Your task to perform on an android device: turn off sleep mode Image 0: 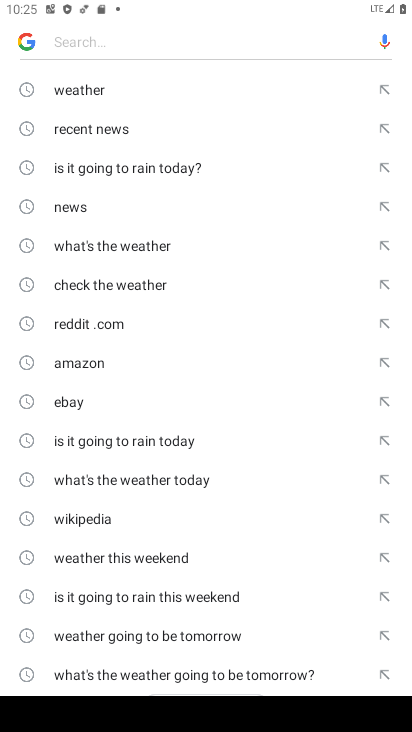
Step 0: press home button
Your task to perform on an android device: turn off sleep mode Image 1: 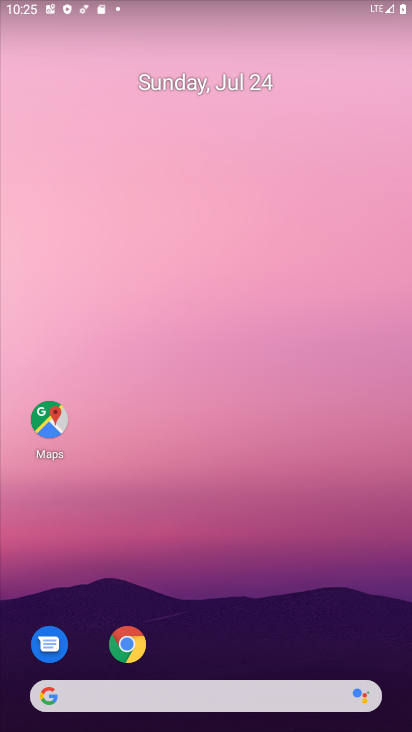
Step 1: drag from (35, 491) to (230, 2)
Your task to perform on an android device: turn off sleep mode Image 2: 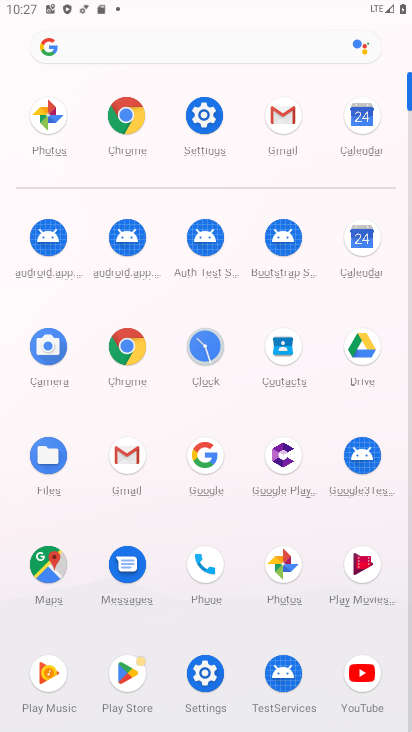
Step 2: click (199, 112)
Your task to perform on an android device: turn off sleep mode Image 3: 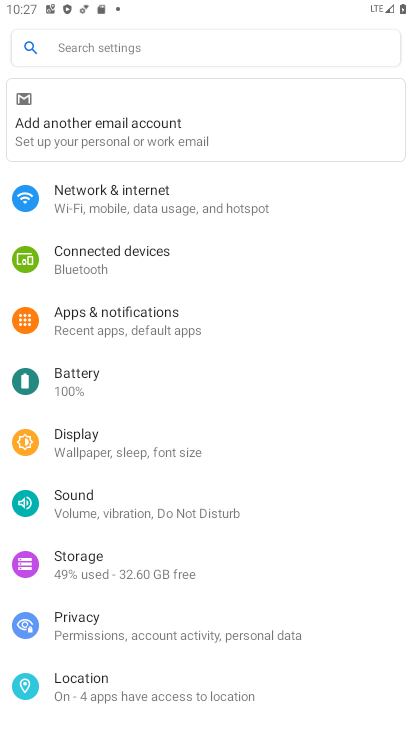
Step 3: task complete